Your task to perform on an android device: Show me the alarms in the clock app Image 0: 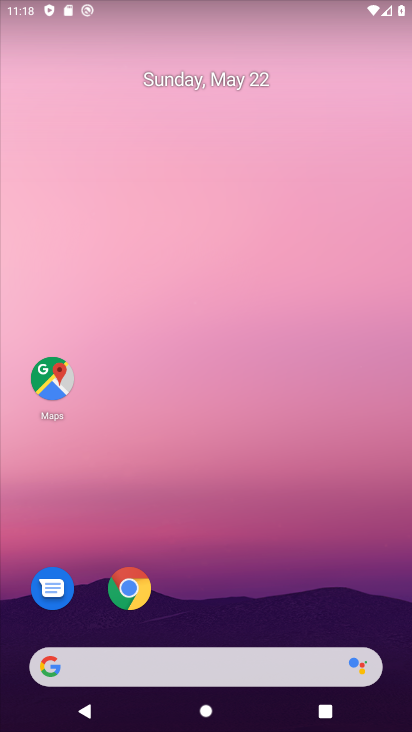
Step 0: drag from (256, 699) to (288, 155)
Your task to perform on an android device: Show me the alarms in the clock app Image 1: 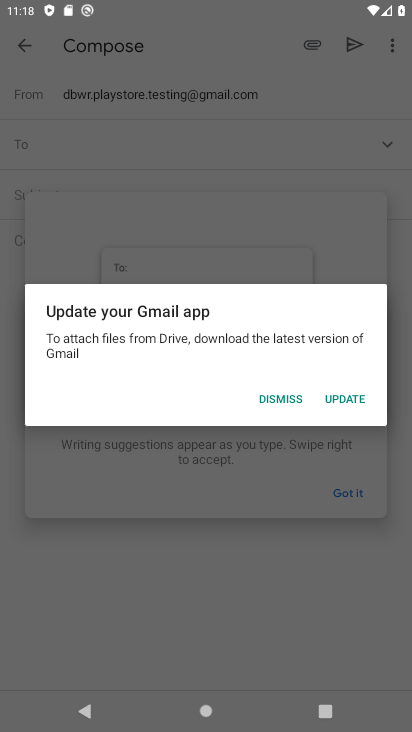
Step 1: click (283, 393)
Your task to perform on an android device: Show me the alarms in the clock app Image 2: 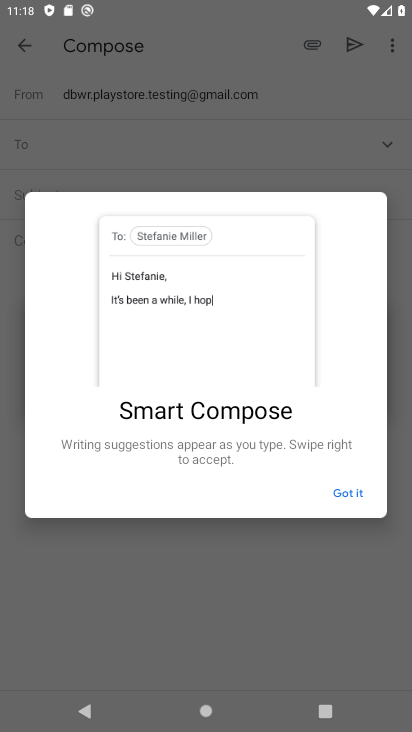
Step 2: press home button
Your task to perform on an android device: Show me the alarms in the clock app Image 3: 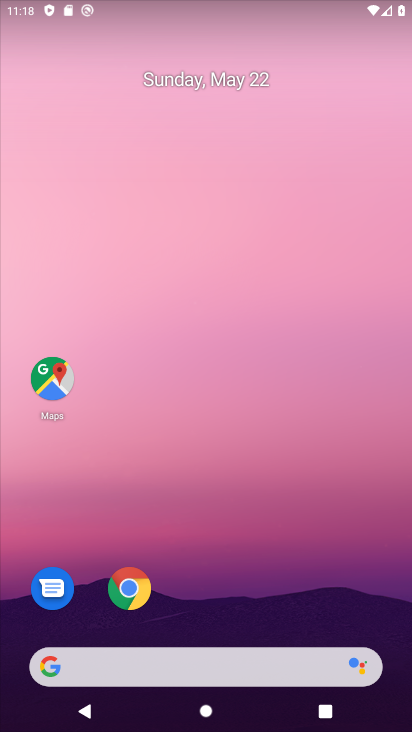
Step 3: drag from (227, 689) to (264, 159)
Your task to perform on an android device: Show me the alarms in the clock app Image 4: 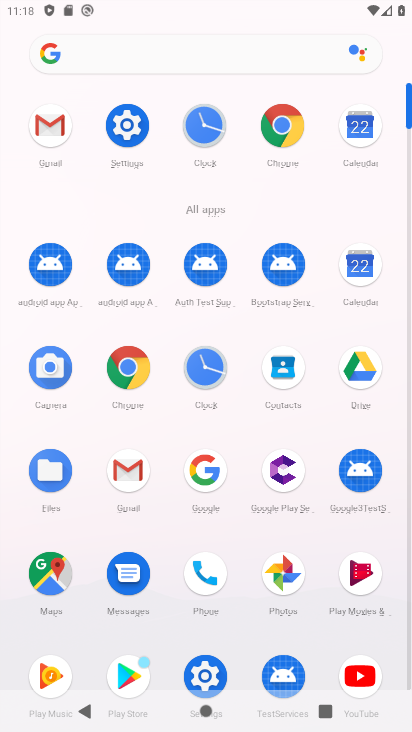
Step 4: click (216, 364)
Your task to perform on an android device: Show me the alarms in the clock app Image 5: 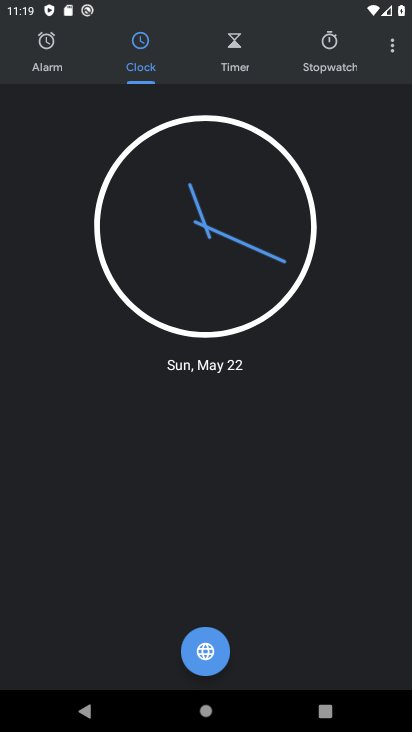
Step 5: click (61, 44)
Your task to perform on an android device: Show me the alarms in the clock app Image 6: 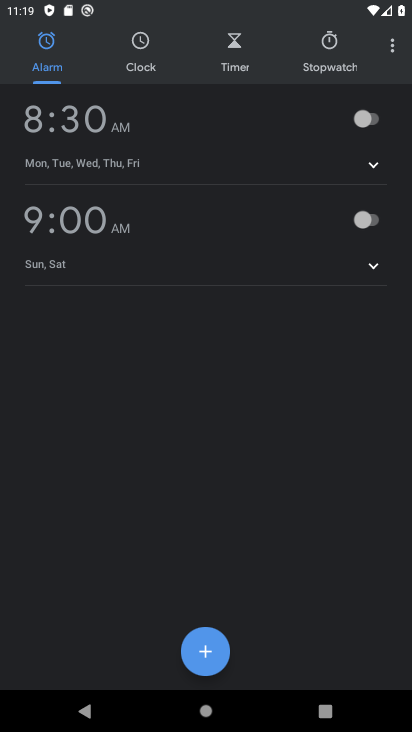
Step 6: task complete